Your task to perform on an android device: toggle pop-ups in chrome Image 0: 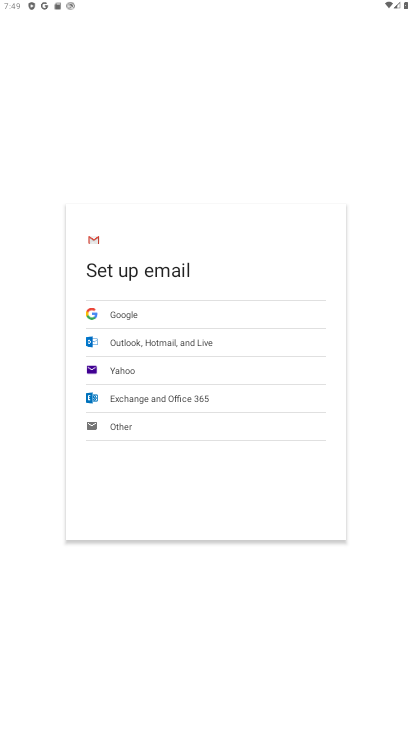
Step 0: press home button
Your task to perform on an android device: toggle pop-ups in chrome Image 1: 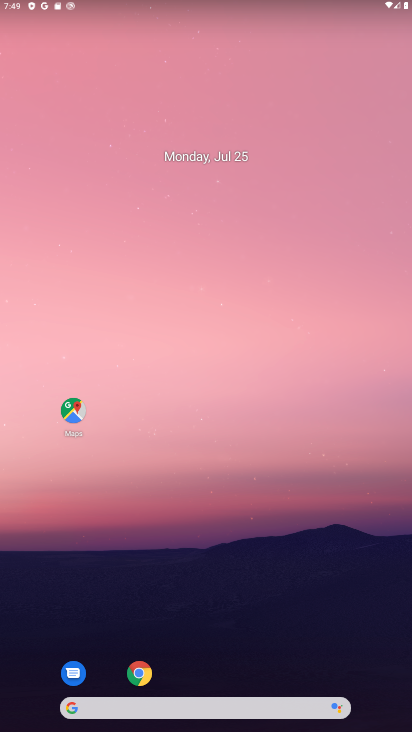
Step 1: click (131, 681)
Your task to perform on an android device: toggle pop-ups in chrome Image 2: 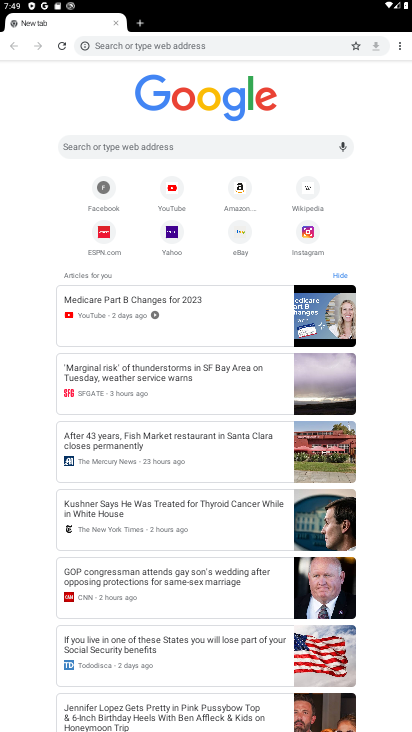
Step 2: click (397, 48)
Your task to perform on an android device: toggle pop-ups in chrome Image 3: 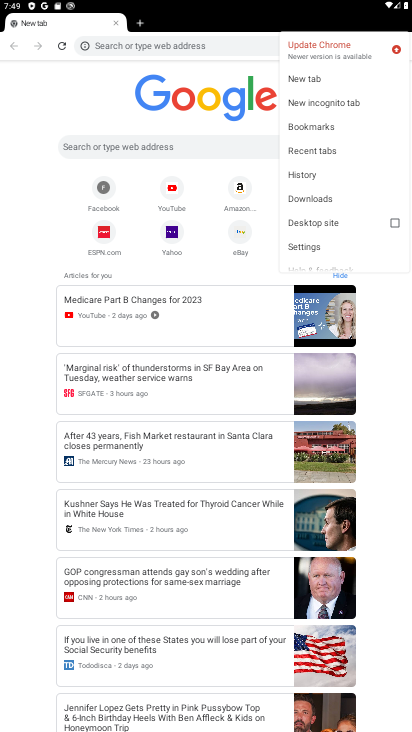
Step 3: click (320, 247)
Your task to perform on an android device: toggle pop-ups in chrome Image 4: 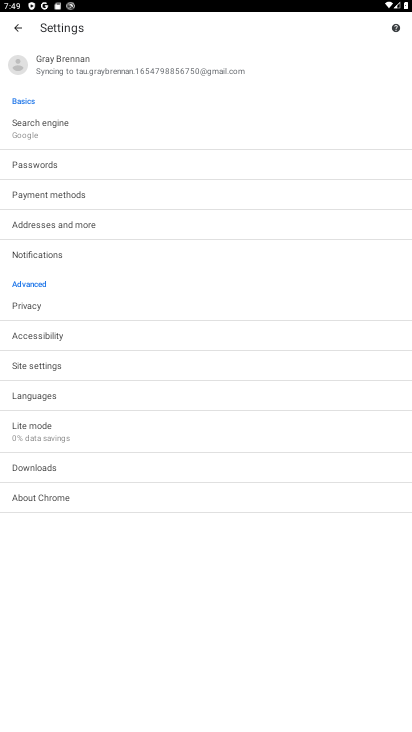
Step 4: click (105, 365)
Your task to perform on an android device: toggle pop-ups in chrome Image 5: 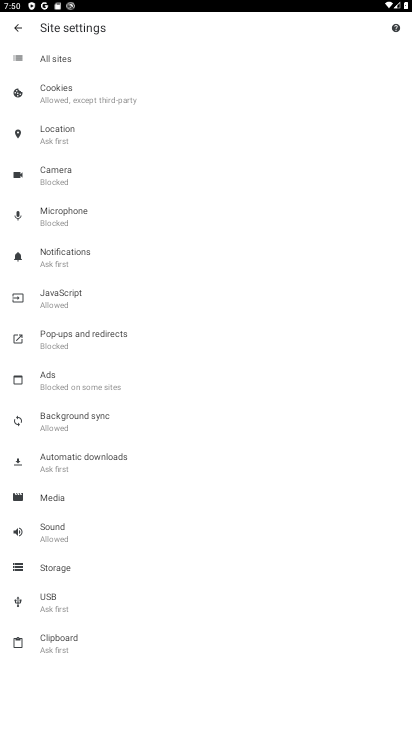
Step 5: click (96, 323)
Your task to perform on an android device: toggle pop-ups in chrome Image 6: 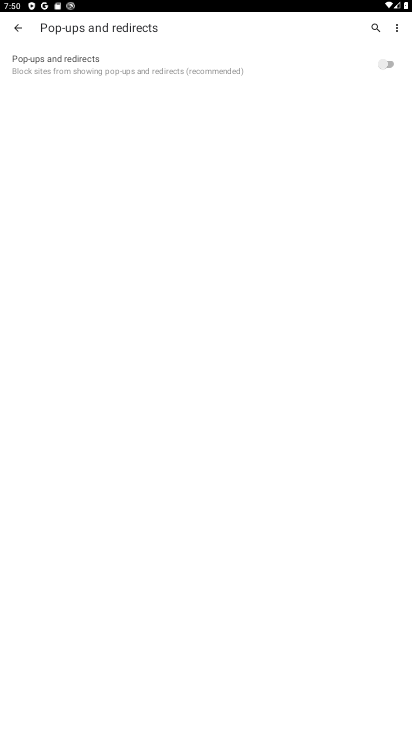
Step 6: click (392, 50)
Your task to perform on an android device: toggle pop-ups in chrome Image 7: 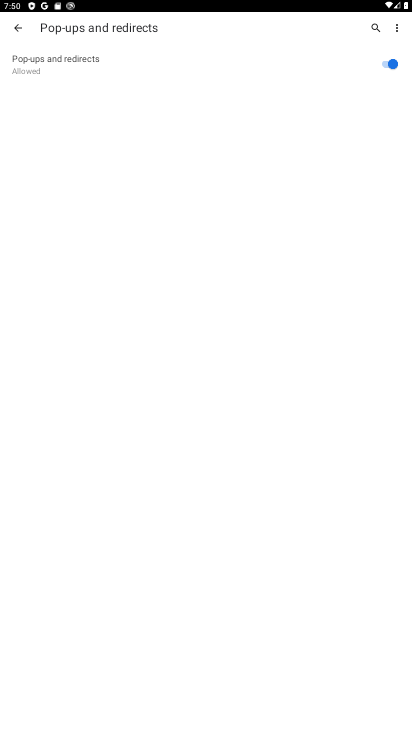
Step 7: task complete